Your task to perform on an android device: move a message to another label in the gmail app Image 0: 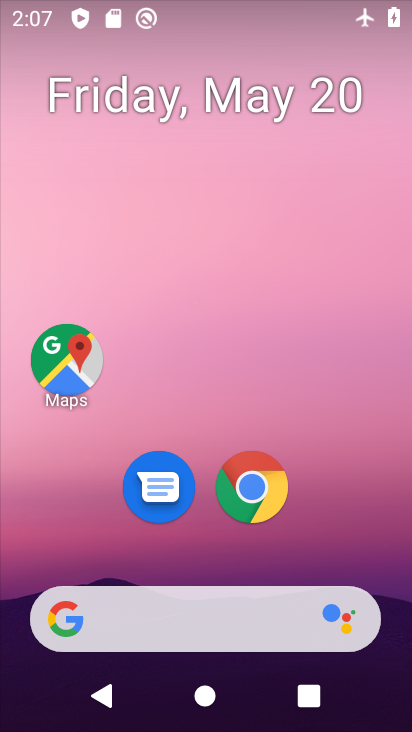
Step 0: drag from (292, 699) to (310, 156)
Your task to perform on an android device: move a message to another label in the gmail app Image 1: 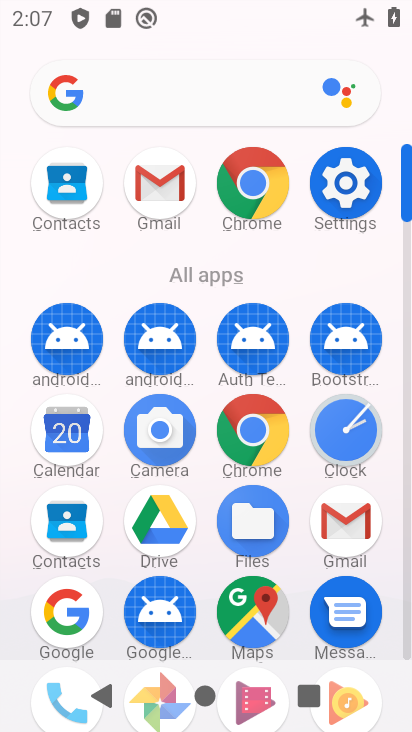
Step 1: click (348, 529)
Your task to perform on an android device: move a message to another label in the gmail app Image 2: 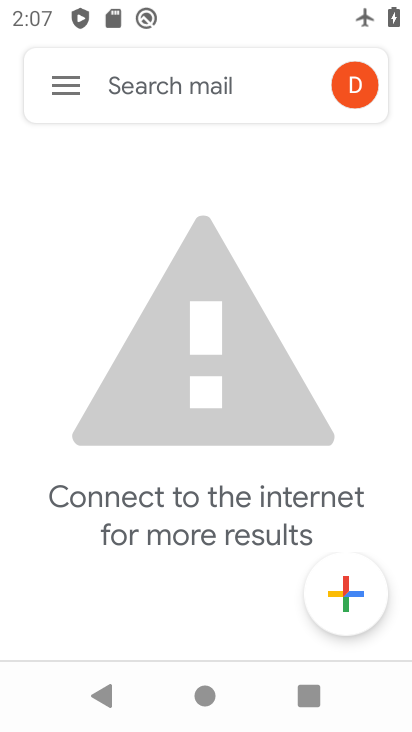
Step 2: click (63, 89)
Your task to perform on an android device: move a message to another label in the gmail app Image 3: 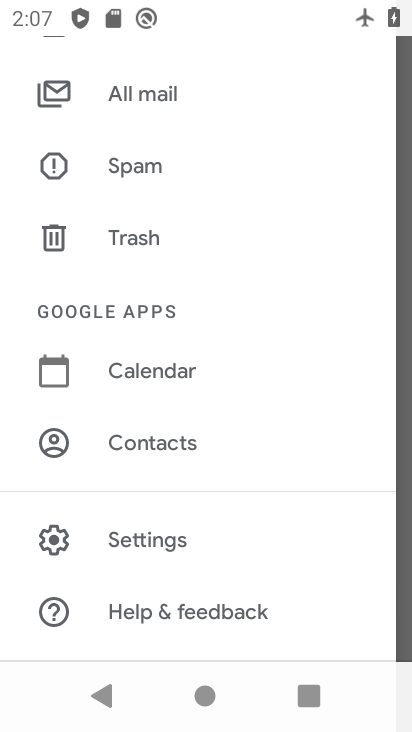
Step 3: click (138, 95)
Your task to perform on an android device: move a message to another label in the gmail app Image 4: 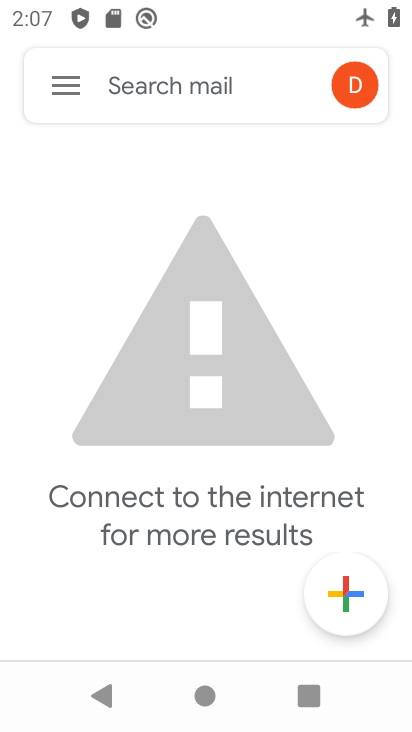
Step 4: task complete